Your task to perform on an android device: turn off wifi Image 0: 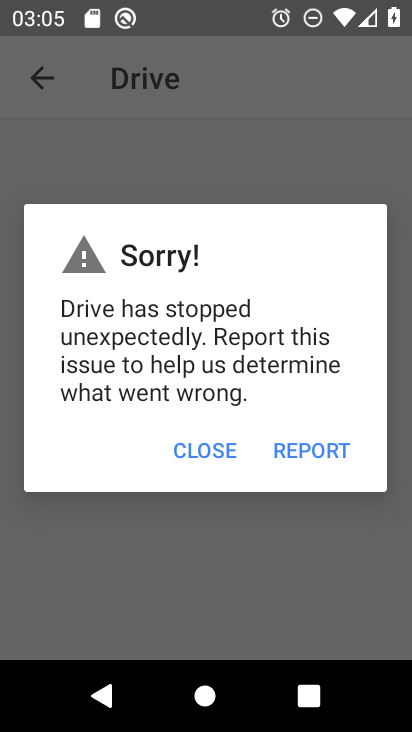
Step 0: press home button
Your task to perform on an android device: turn off wifi Image 1: 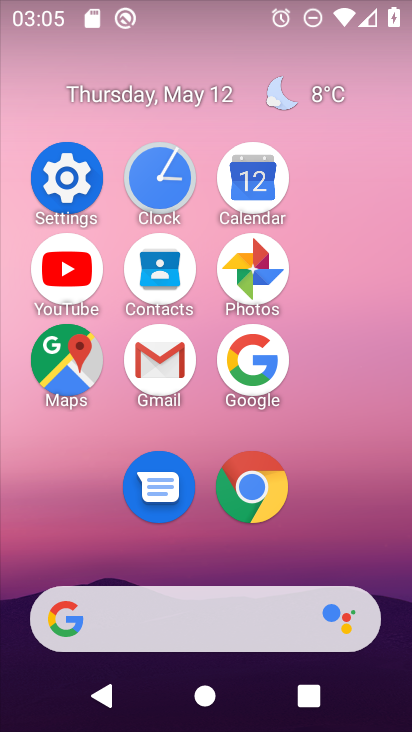
Step 1: click (93, 189)
Your task to perform on an android device: turn off wifi Image 2: 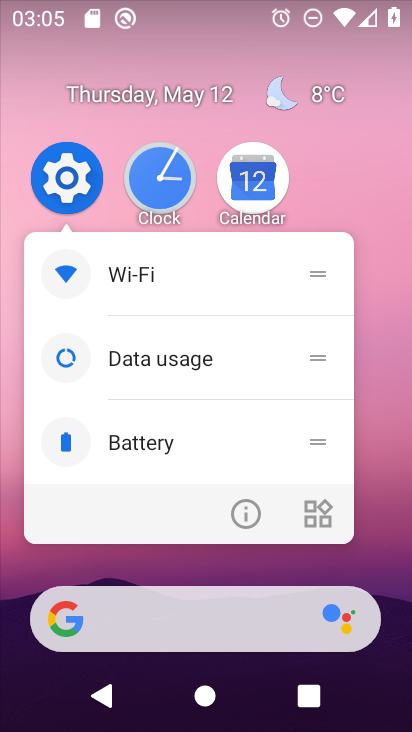
Step 2: click (117, 277)
Your task to perform on an android device: turn off wifi Image 3: 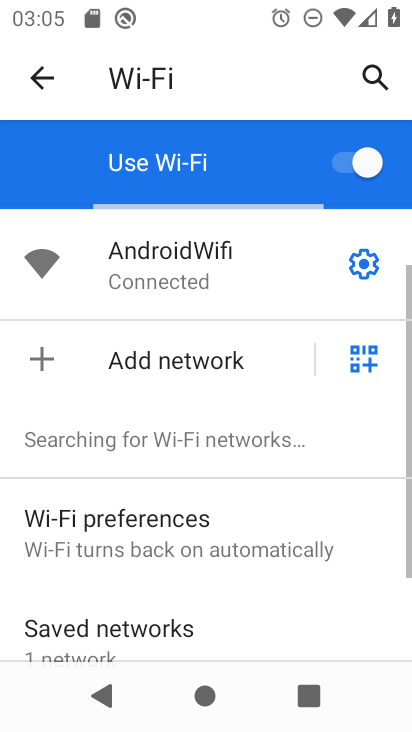
Step 3: click (375, 163)
Your task to perform on an android device: turn off wifi Image 4: 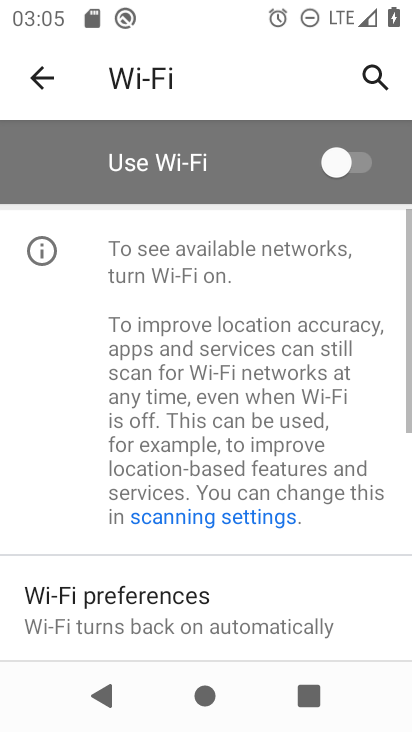
Step 4: task complete